Your task to perform on an android device: Is it going to rain today? Image 0: 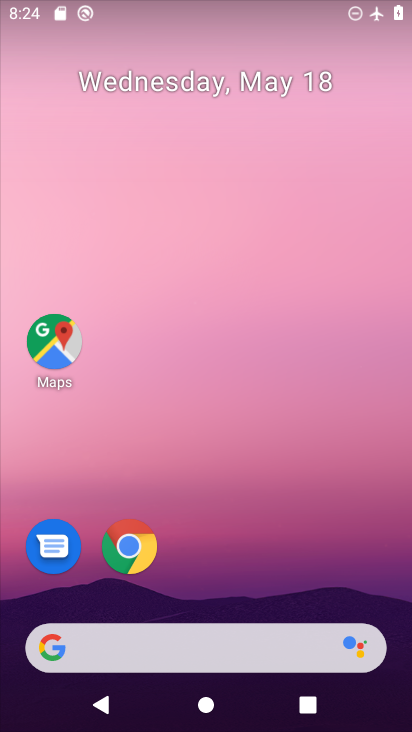
Step 0: drag from (227, 652) to (324, 236)
Your task to perform on an android device: Is it going to rain today? Image 1: 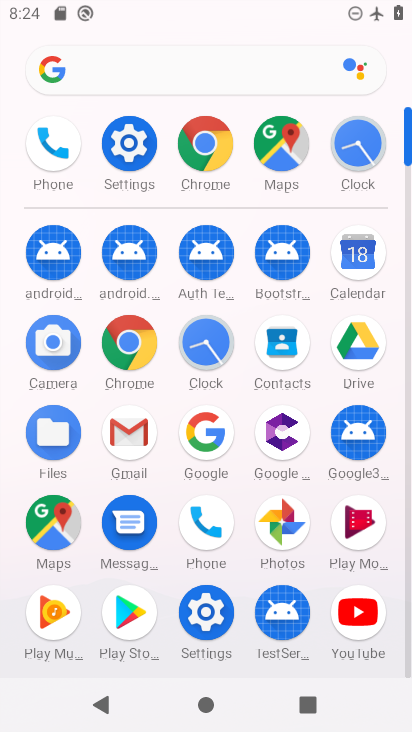
Step 1: click (135, 72)
Your task to perform on an android device: Is it going to rain today? Image 2: 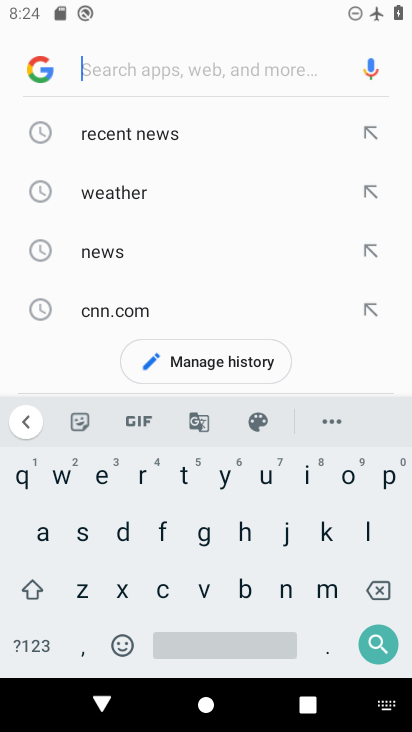
Step 2: click (128, 180)
Your task to perform on an android device: Is it going to rain today? Image 3: 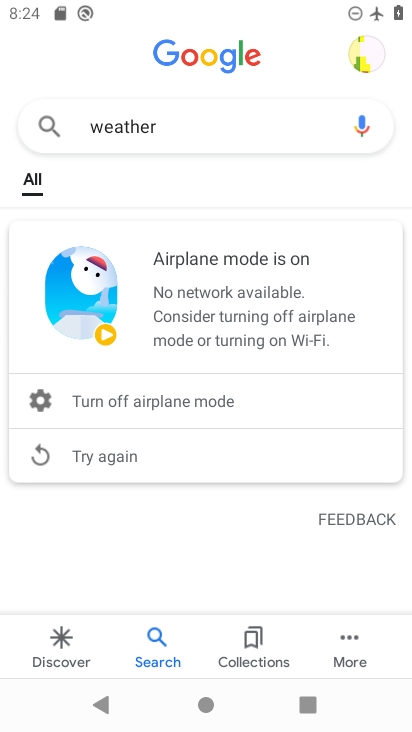
Step 3: press home button
Your task to perform on an android device: Is it going to rain today? Image 4: 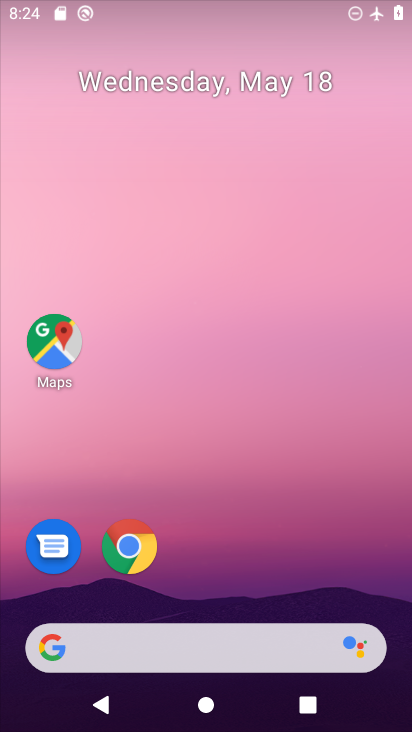
Step 4: drag from (280, 668) to (362, 36)
Your task to perform on an android device: Is it going to rain today? Image 5: 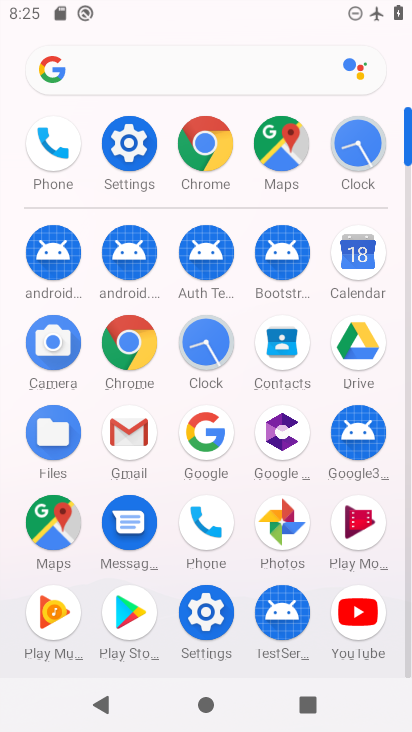
Step 5: click (146, 170)
Your task to perform on an android device: Is it going to rain today? Image 6: 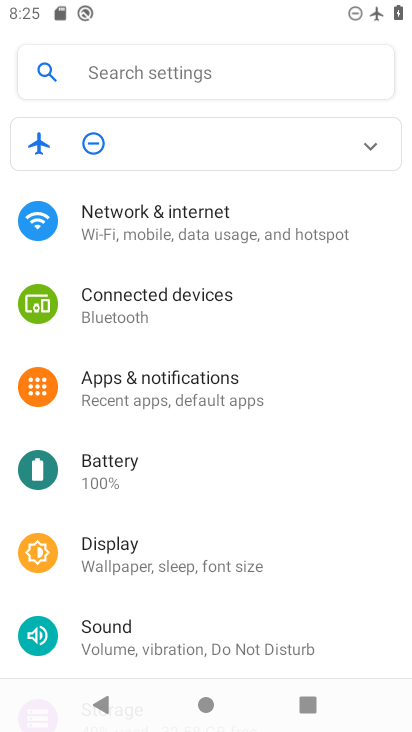
Step 6: click (368, 139)
Your task to perform on an android device: Is it going to rain today? Image 7: 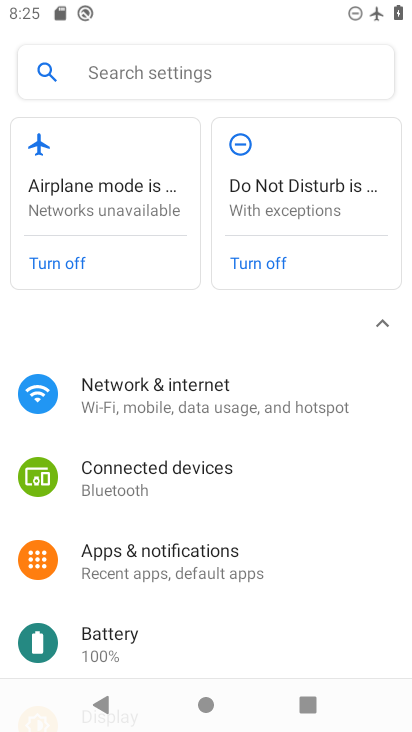
Step 7: click (65, 262)
Your task to perform on an android device: Is it going to rain today? Image 8: 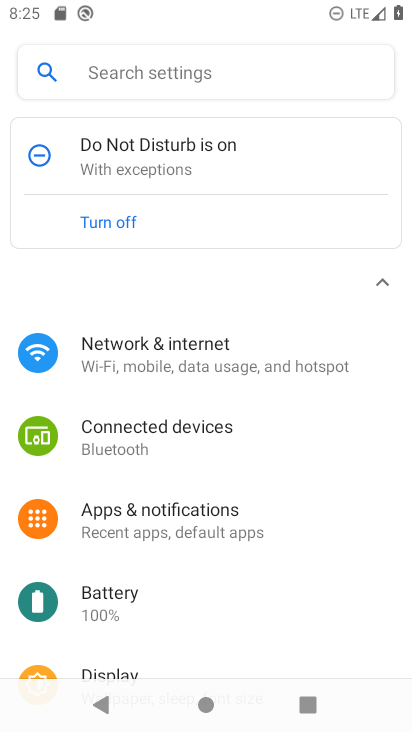
Step 8: press home button
Your task to perform on an android device: Is it going to rain today? Image 9: 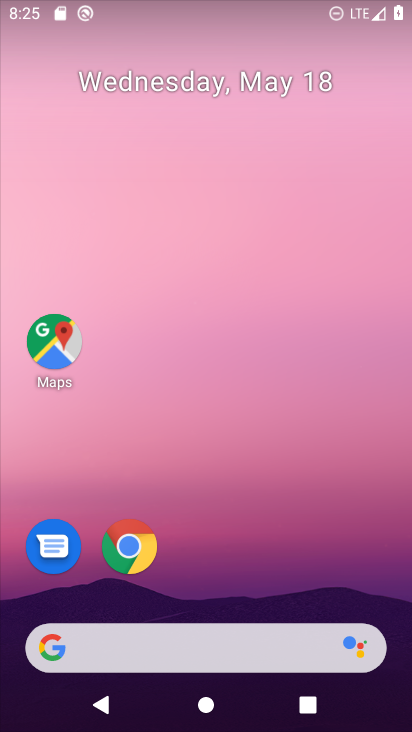
Step 9: click (203, 648)
Your task to perform on an android device: Is it going to rain today? Image 10: 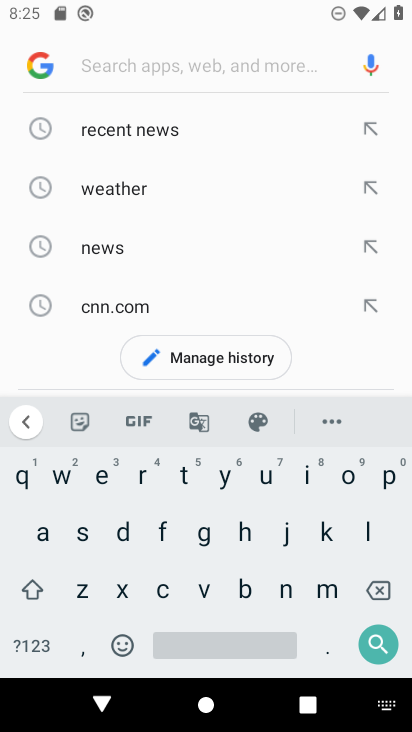
Step 10: click (137, 479)
Your task to perform on an android device: Is it going to rain today? Image 11: 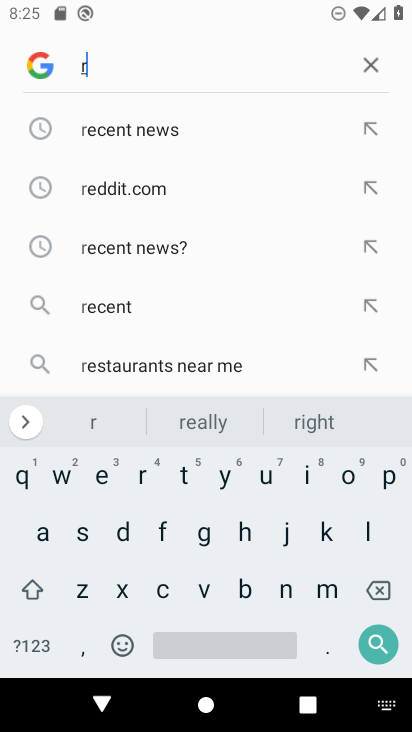
Step 11: click (39, 529)
Your task to perform on an android device: Is it going to rain today? Image 12: 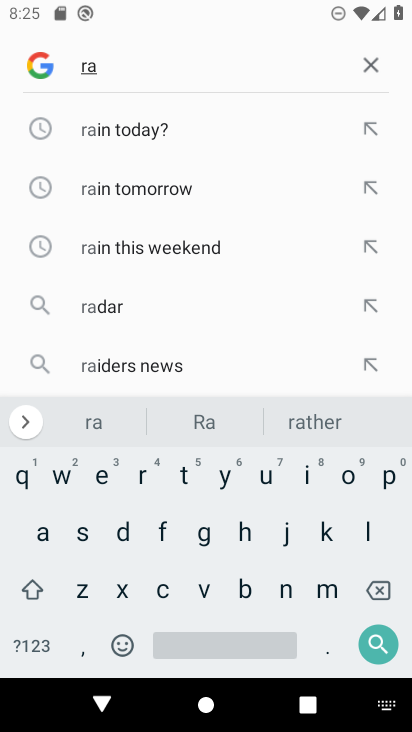
Step 12: click (305, 472)
Your task to perform on an android device: Is it going to rain today? Image 13: 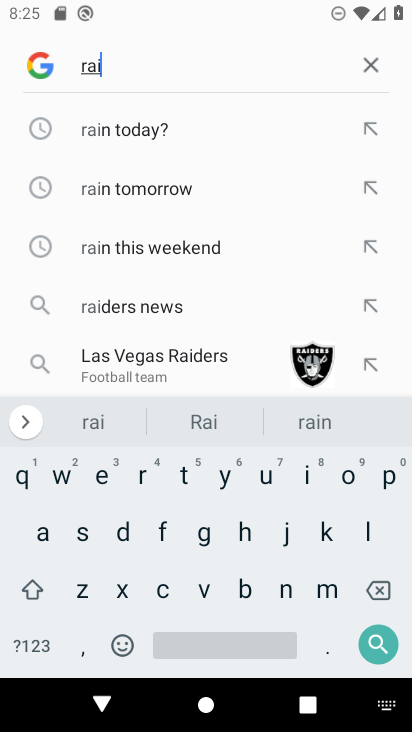
Step 13: click (279, 586)
Your task to perform on an android device: Is it going to rain today? Image 14: 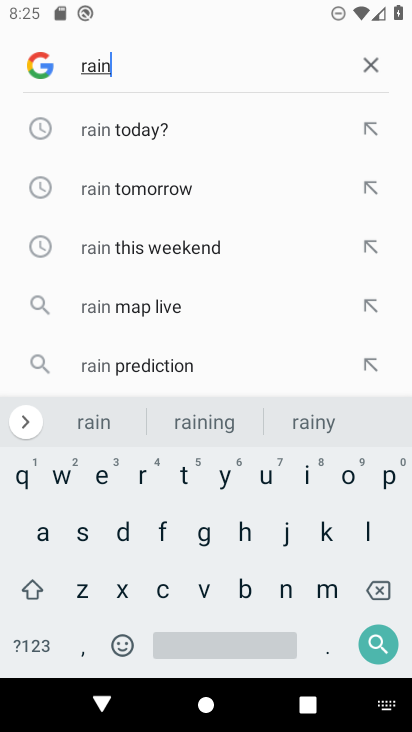
Step 14: click (135, 134)
Your task to perform on an android device: Is it going to rain today? Image 15: 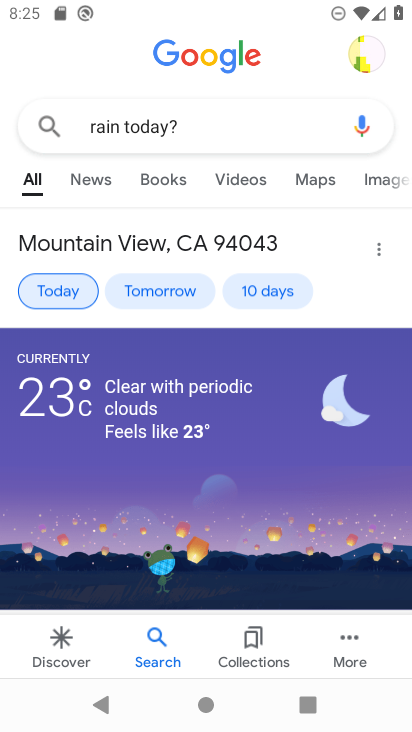
Step 15: task complete